Your task to perform on an android device: Open the web browser Image 0: 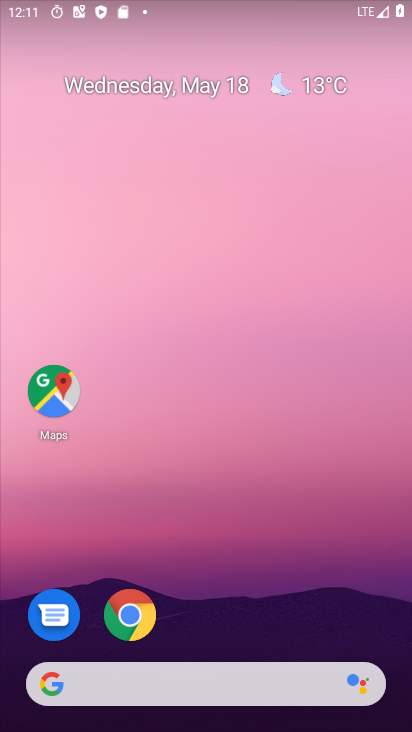
Step 0: click (127, 628)
Your task to perform on an android device: Open the web browser Image 1: 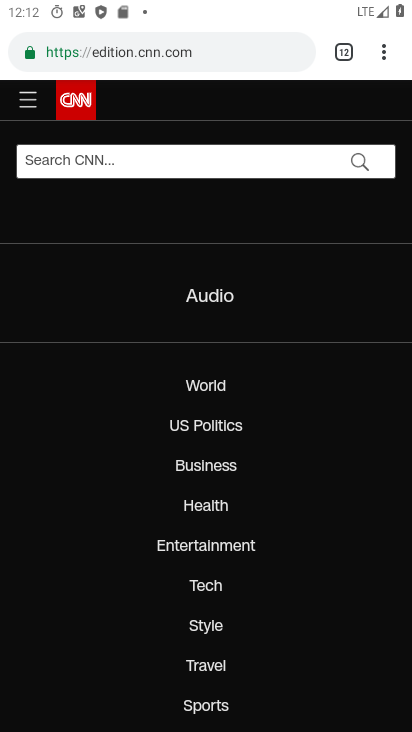
Step 1: task complete